Your task to perform on an android device: Toggle the flashlight Image 0: 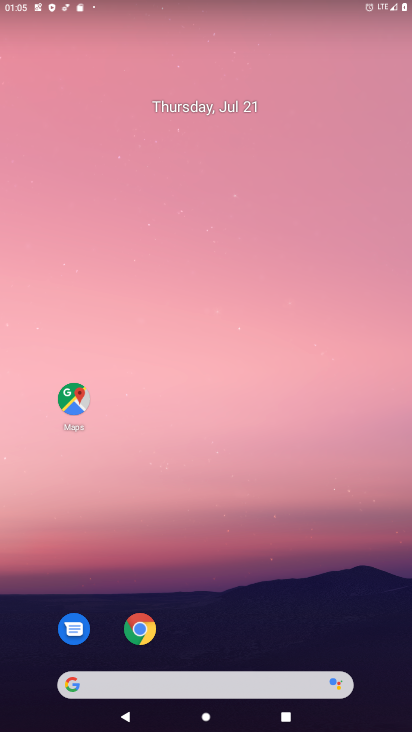
Step 0: drag from (342, 600) to (262, 5)
Your task to perform on an android device: Toggle the flashlight Image 1: 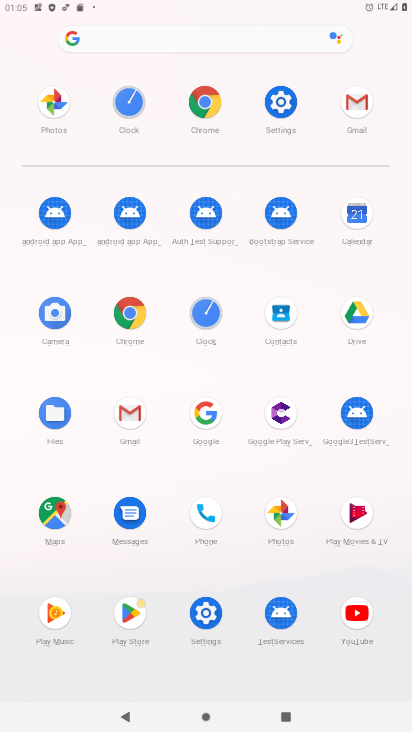
Step 1: click (285, 98)
Your task to perform on an android device: Toggle the flashlight Image 2: 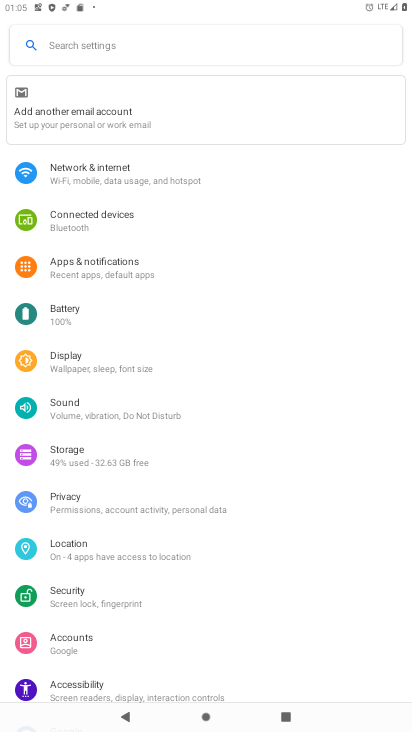
Step 2: click (78, 359)
Your task to perform on an android device: Toggle the flashlight Image 3: 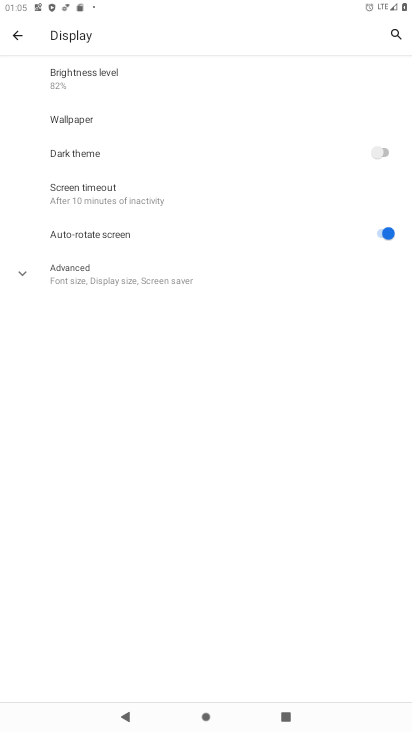
Step 3: click (117, 203)
Your task to perform on an android device: Toggle the flashlight Image 4: 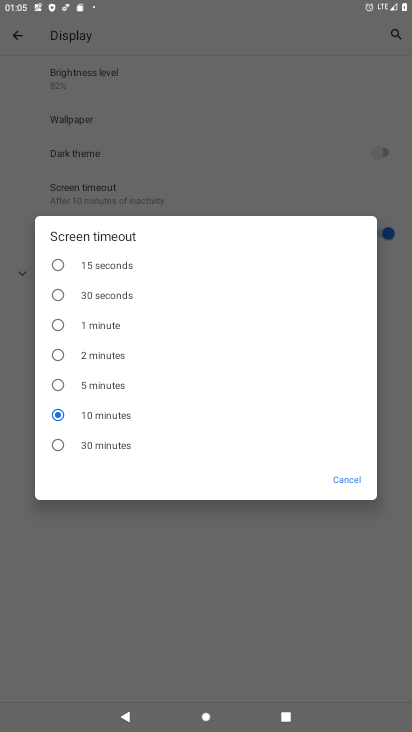
Step 4: task complete